Your task to perform on an android device: open sync settings in chrome Image 0: 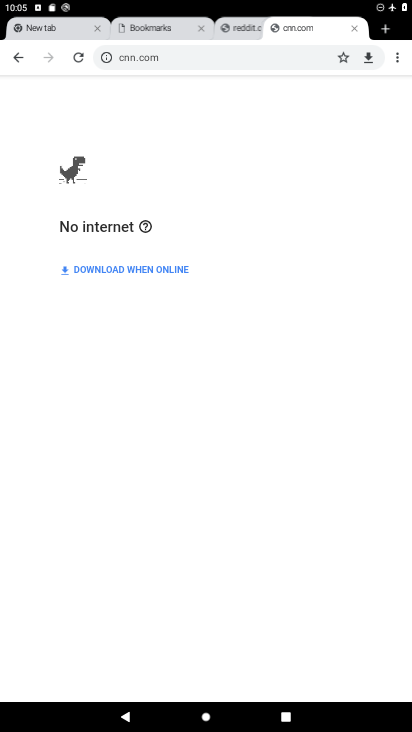
Step 0: press home button
Your task to perform on an android device: open sync settings in chrome Image 1: 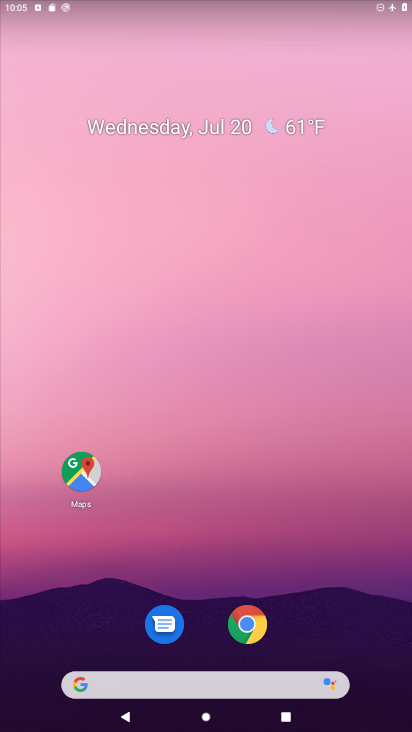
Step 1: click (240, 611)
Your task to perform on an android device: open sync settings in chrome Image 2: 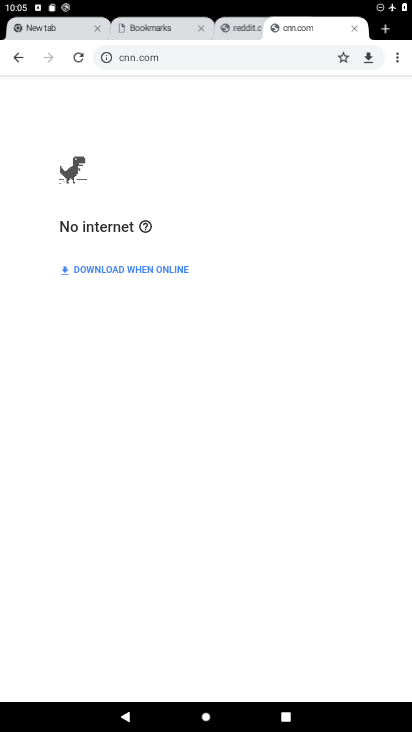
Step 2: click (394, 60)
Your task to perform on an android device: open sync settings in chrome Image 3: 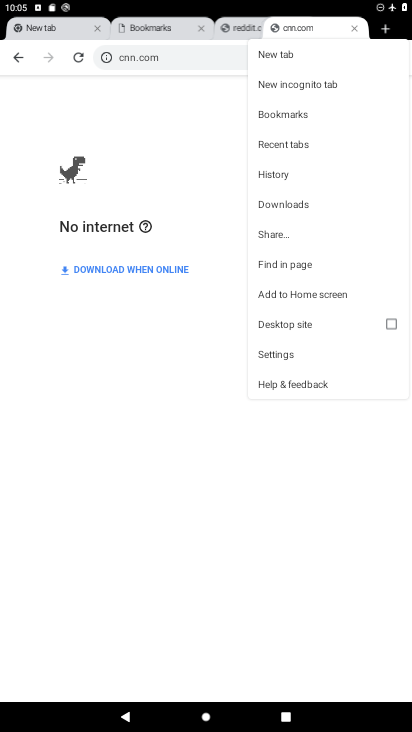
Step 3: click (295, 359)
Your task to perform on an android device: open sync settings in chrome Image 4: 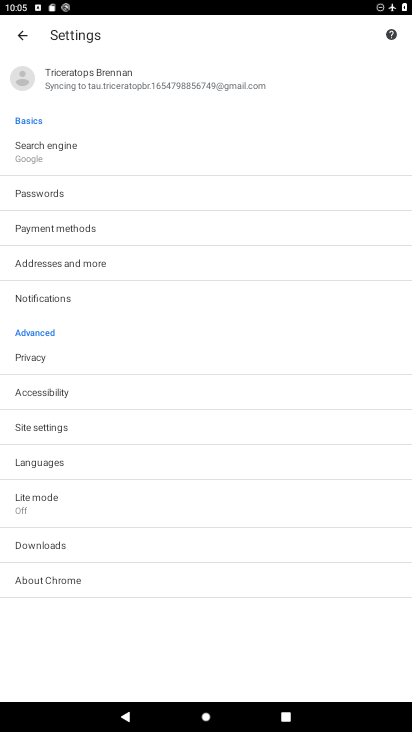
Step 4: click (114, 88)
Your task to perform on an android device: open sync settings in chrome Image 5: 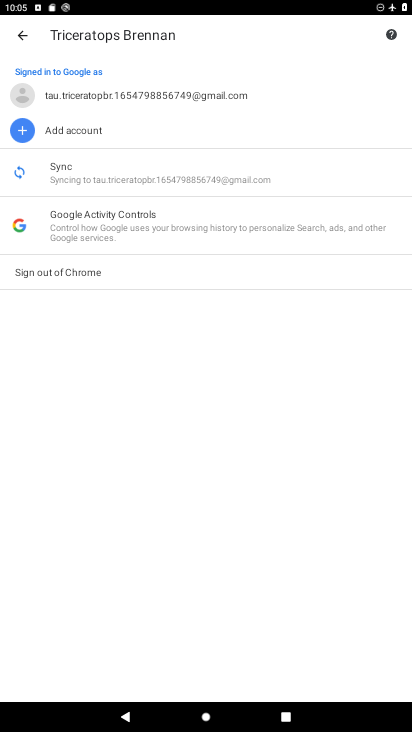
Step 5: click (95, 169)
Your task to perform on an android device: open sync settings in chrome Image 6: 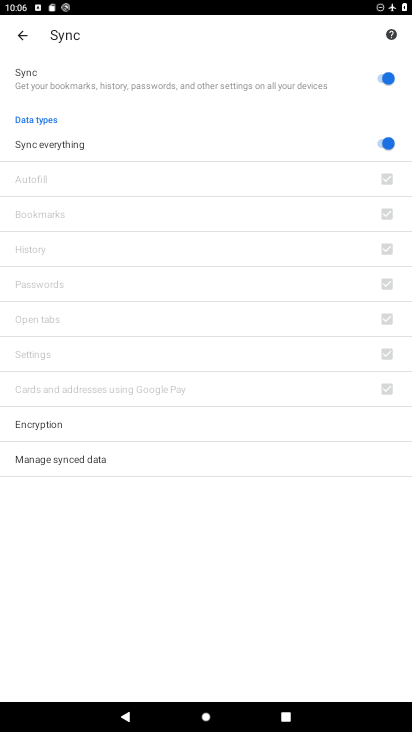
Step 6: task complete